Your task to perform on an android device: Open Chrome and go to settings Image 0: 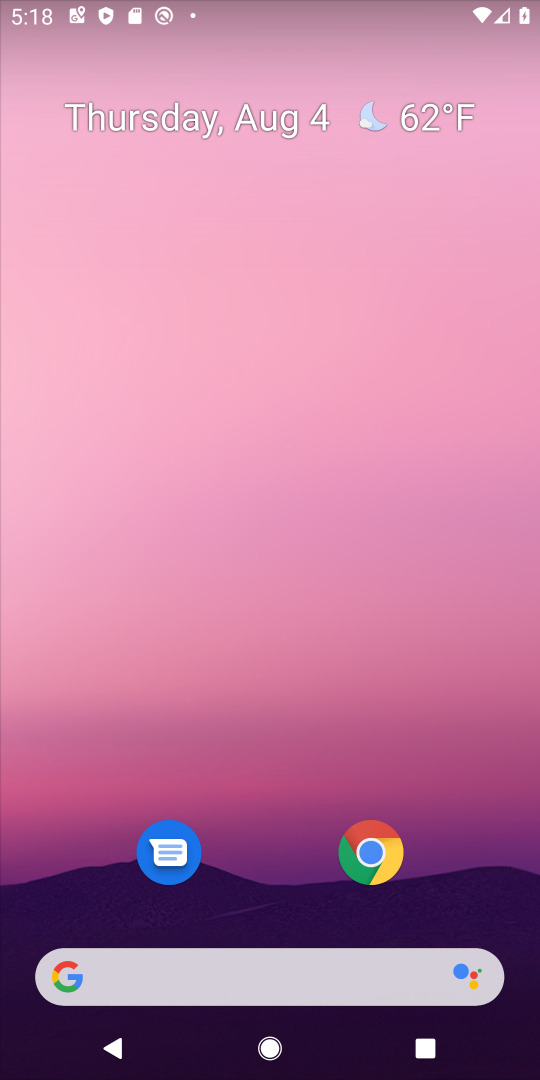
Step 0: click (387, 851)
Your task to perform on an android device: Open Chrome and go to settings Image 1: 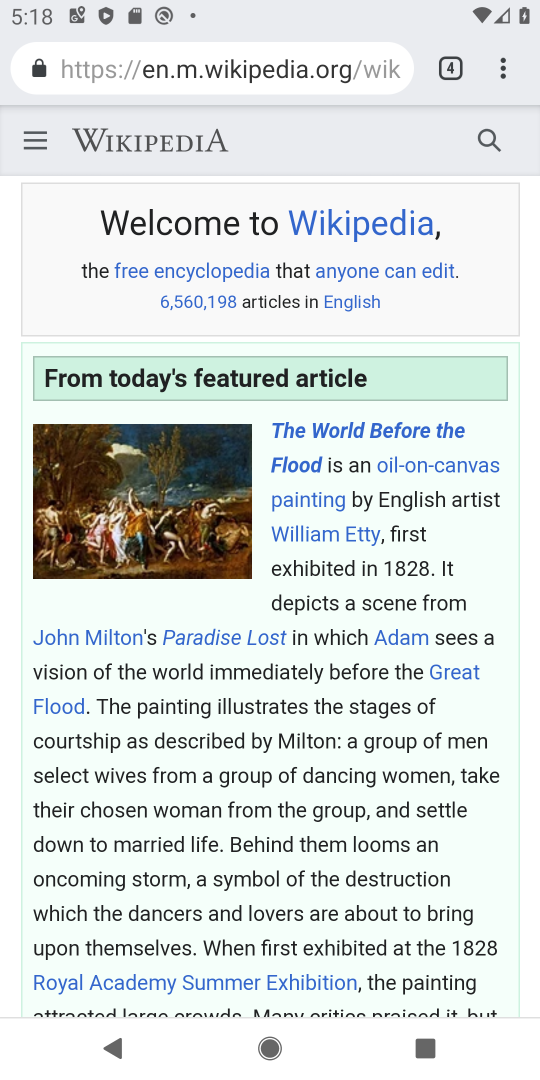
Step 1: click (501, 76)
Your task to perform on an android device: Open Chrome and go to settings Image 2: 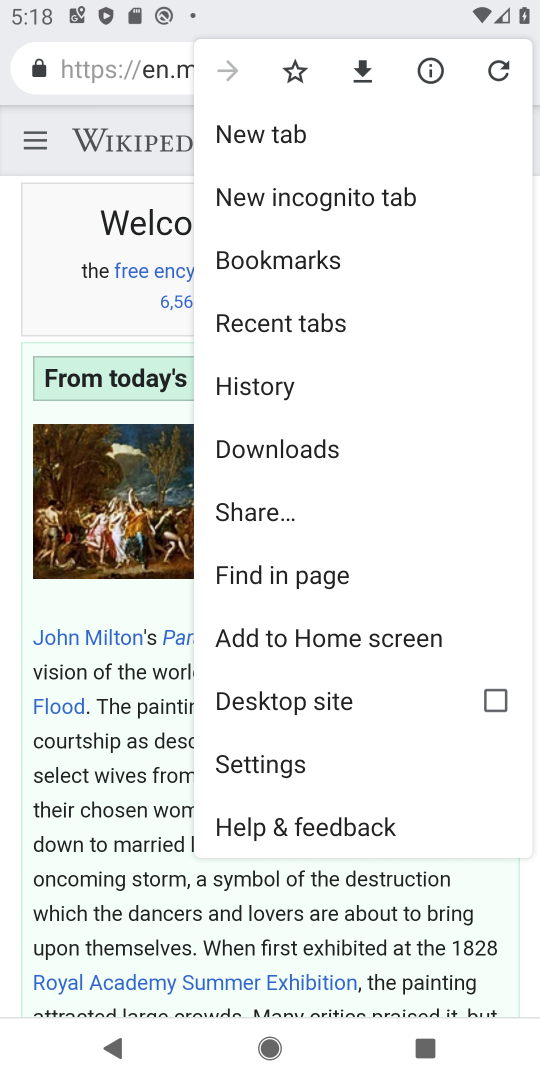
Step 2: click (238, 764)
Your task to perform on an android device: Open Chrome and go to settings Image 3: 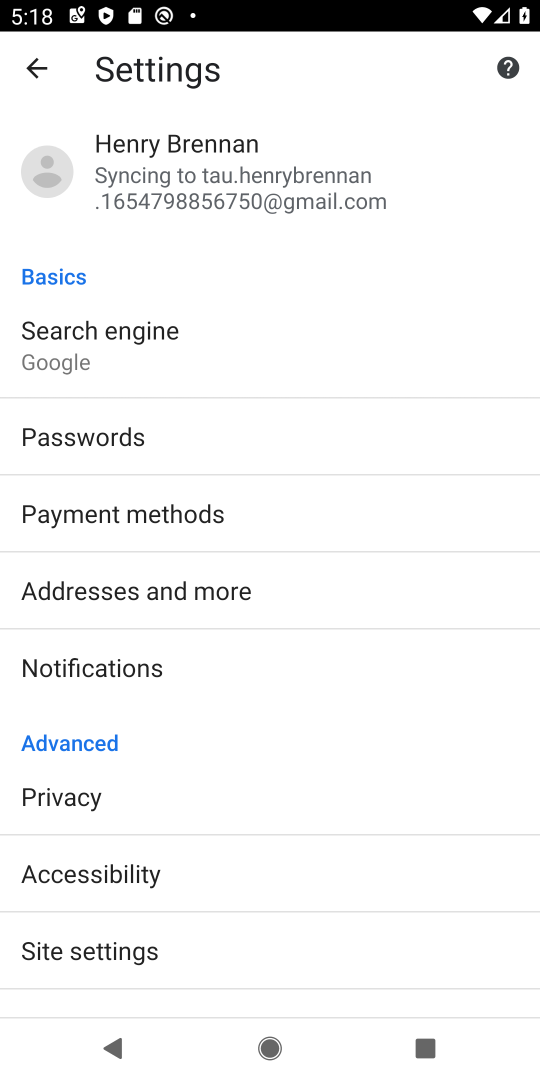
Step 3: task complete